Your task to perform on an android device: turn on the 12-hour format for clock Image 0: 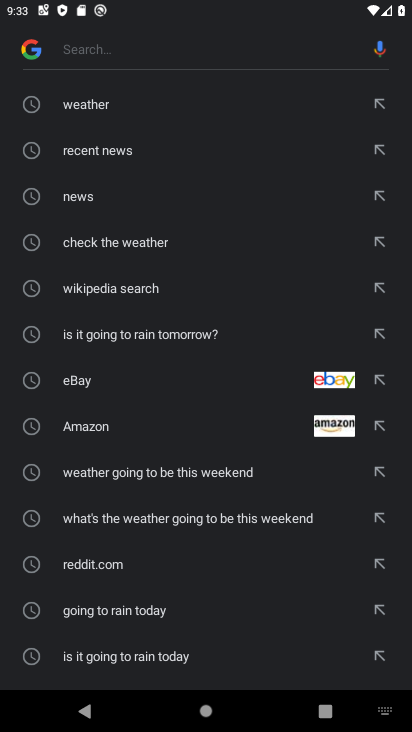
Step 0: press home button
Your task to perform on an android device: turn on the 12-hour format for clock Image 1: 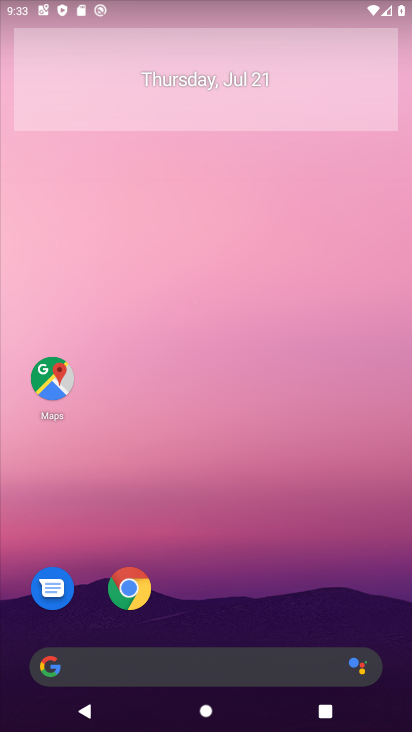
Step 1: drag from (387, 628) to (266, 0)
Your task to perform on an android device: turn on the 12-hour format for clock Image 2: 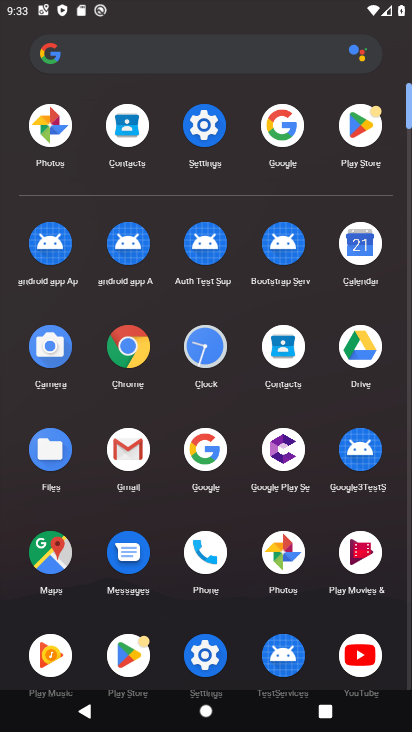
Step 2: click (198, 353)
Your task to perform on an android device: turn on the 12-hour format for clock Image 3: 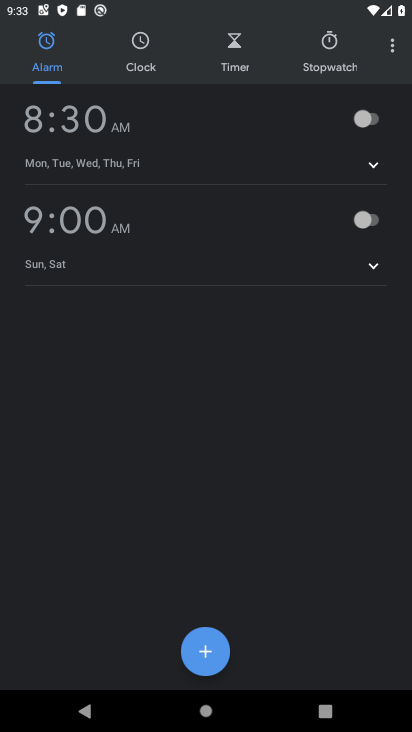
Step 3: click (393, 44)
Your task to perform on an android device: turn on the 12-hour format for clock Image 4: 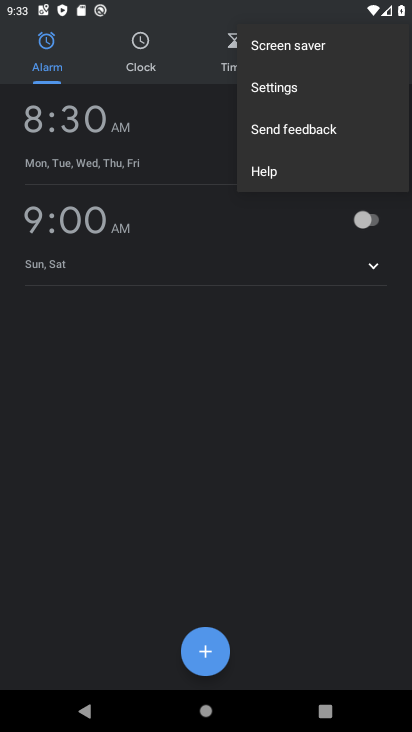
Step 4: click (283, 91)
Your task to perform on an android device: turn on the 12-hour format for clock Image 5: 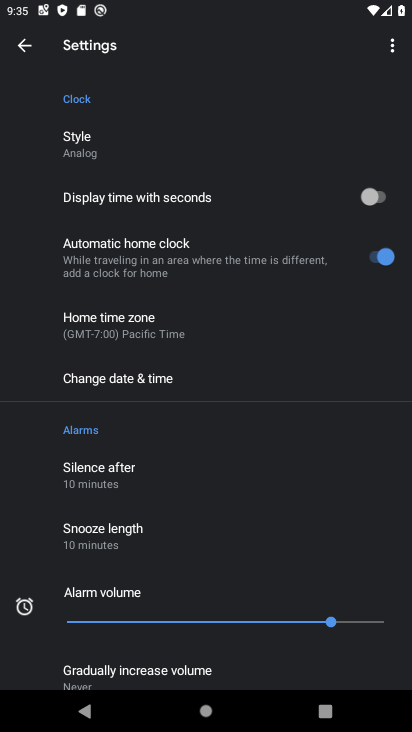
Step 5: click (121, 377)
Your task to perform on an android device: turn on the 12-hour format for clock Image 6: 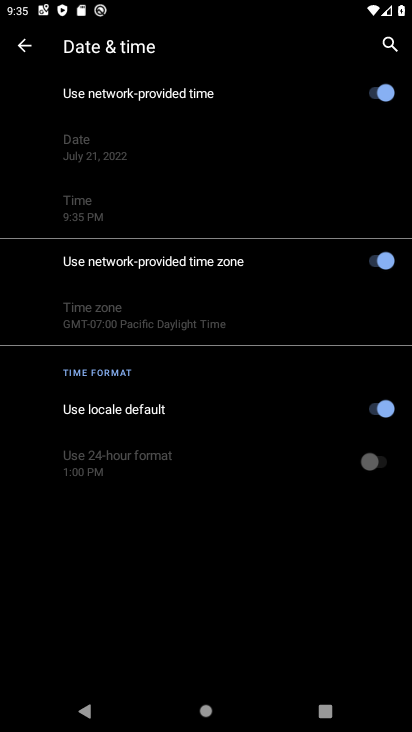
Step 6: task complete